Your task to perform on an android device: toggle show notifications on the lock screen Image 0: 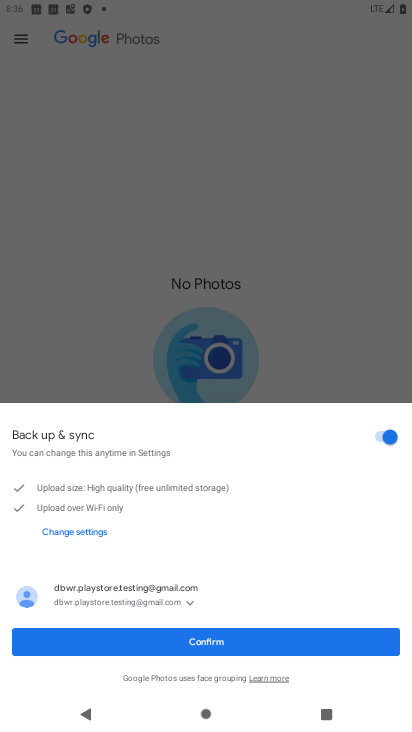
Step 0: click (199, 627)
Your task to perform on an android device: toggle show notifications on the lock screen Image 1: 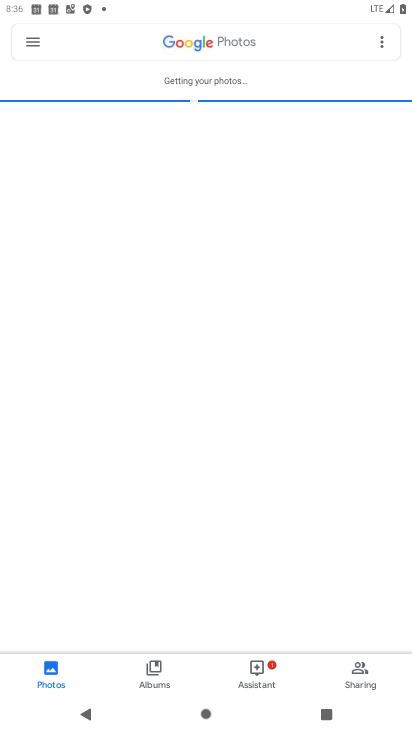
Step 1: press back button
Your task to perform on an android device: toggle show notifications on the lock screen Image 2: 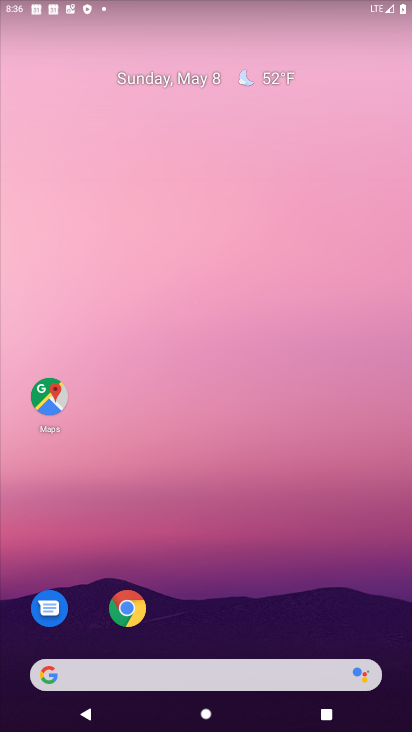
Step 2: drag from (278, 622) to (249, 8)
Your task to perform on an android device: toggle show notifications on the lock screen Image 3: 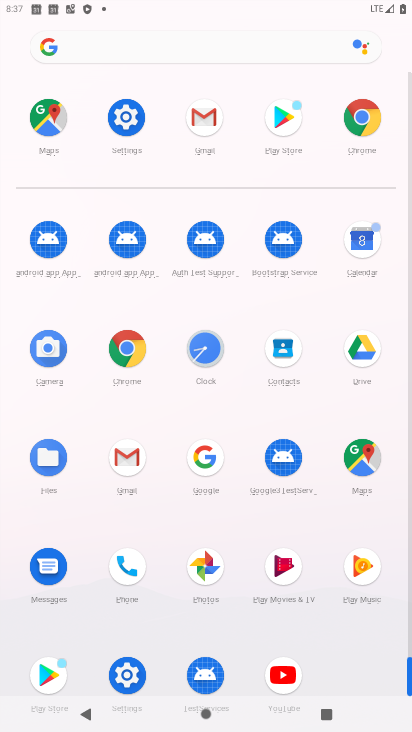
Step 3: click (121, 111)
Your task to perform on an android device: toggle show notifications on the lock screen Image 4: 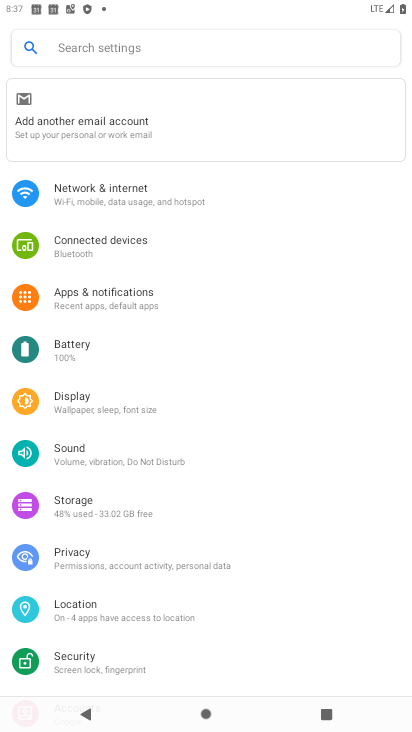
Step 4: click (153, 300)
Your task to perform on an android device: toggle show notifications on the lock screen Image 5: 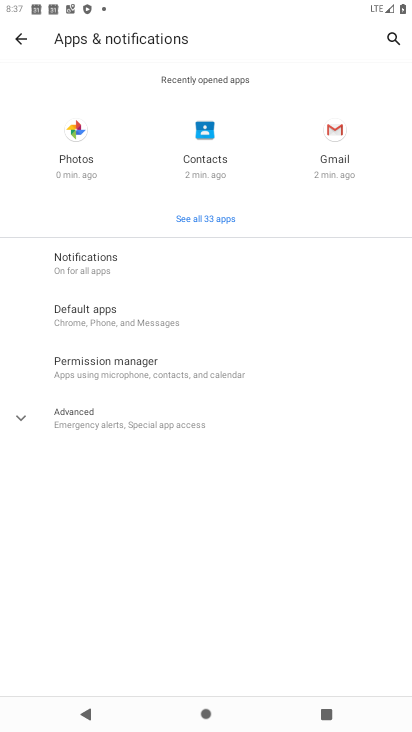
Step 5: click (35, 413)
Your task to perform on an android device: toggle show notifications on the lock screen Image 6: 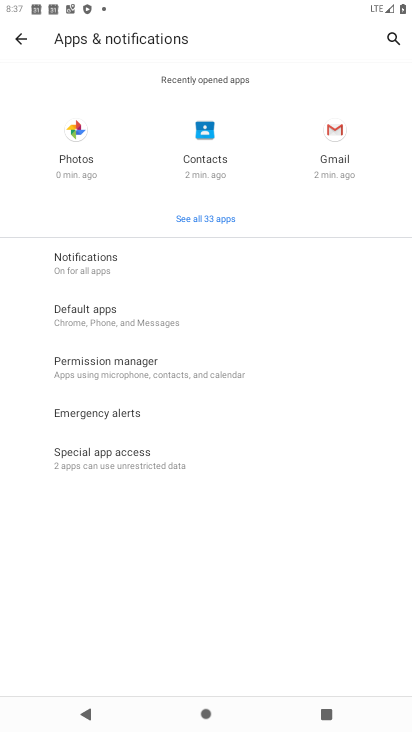
Step 6: click (120, 277)
Your task to perform on an android device: toggle show notifications on the lock screen Image 7: 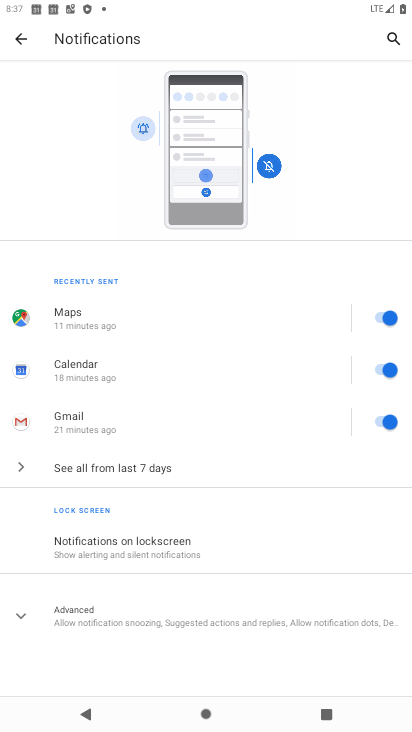
Step 7: click (128, 549)
Your task to perform on an android device: toggle show notifications on the lock screen Image 8: 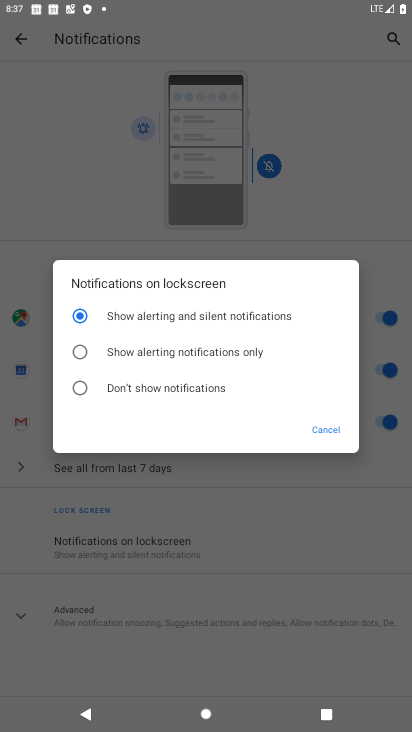
Step 8: click (110, 353)
Your task to perform on an android device: toggle show notifications on the lock screen Image 9: 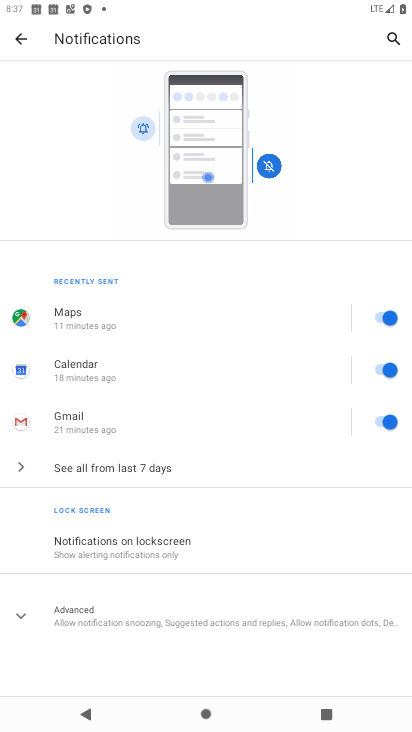
Step 9: task complete